Your task to perform on an android device: Go to eBay Image 0: 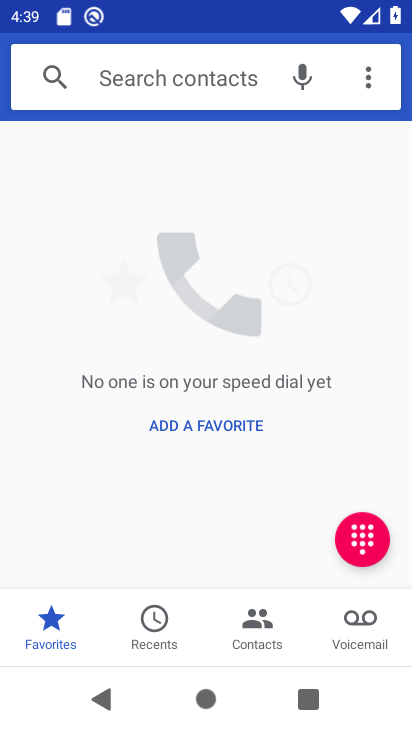
Step 0: press home button
Your task to perform on an android device: Go to eBay Image 1: 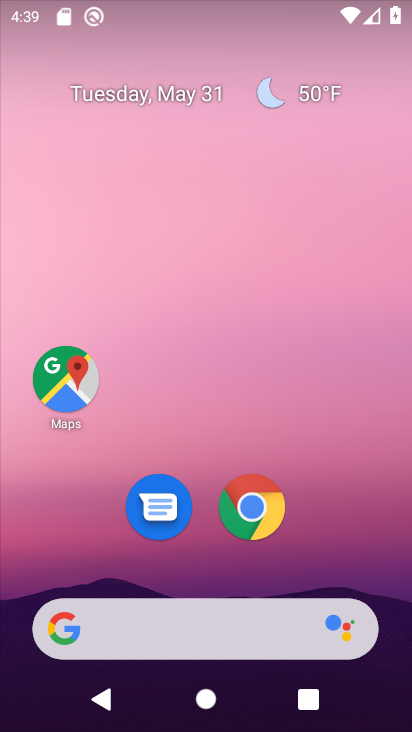
Step 1: click (259, 617)
Your task to perform on an android device: Go to eBay Image 2: 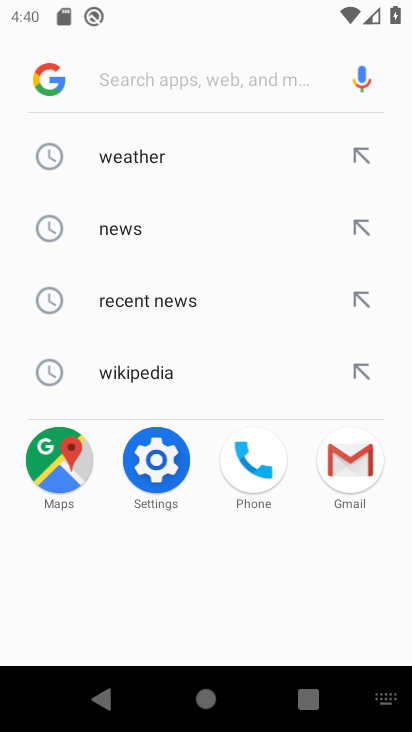
Step 2: type "ebay"
Your task to perform on an android device: Go to eBay Image 3: 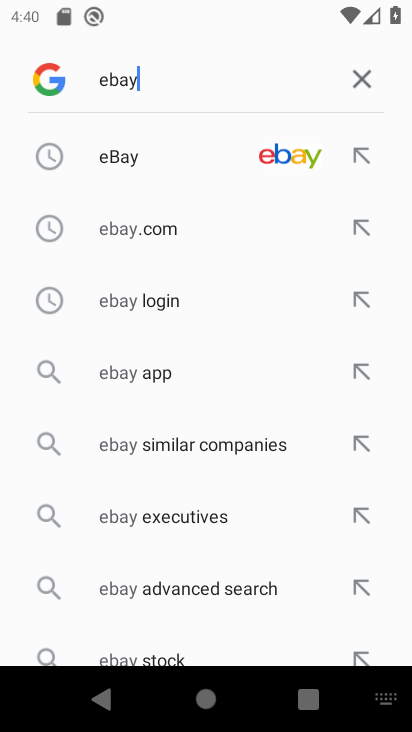
Step 3: click (121, 160)
Your task to perform on an android device: Go to eBay Image 4: 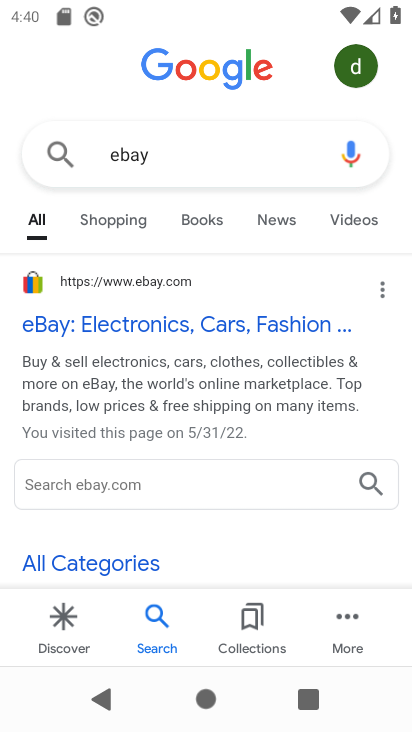
Step 4: click (42, 322)
Your task to perform on an android device: Go to eBay Image 5: 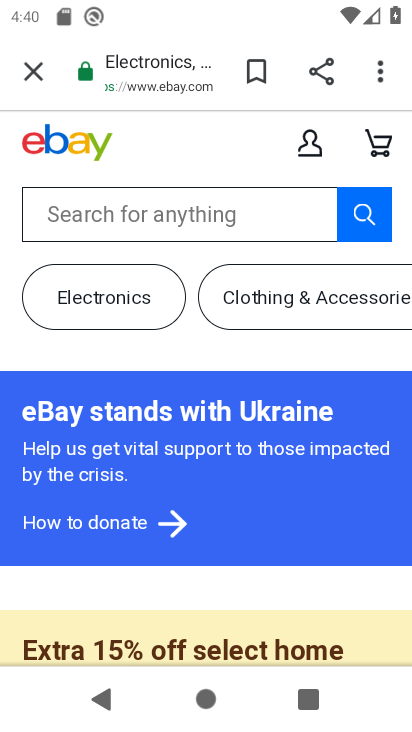
Step 5: task complete